Your task to perform on an android device: check data usage Image 0: 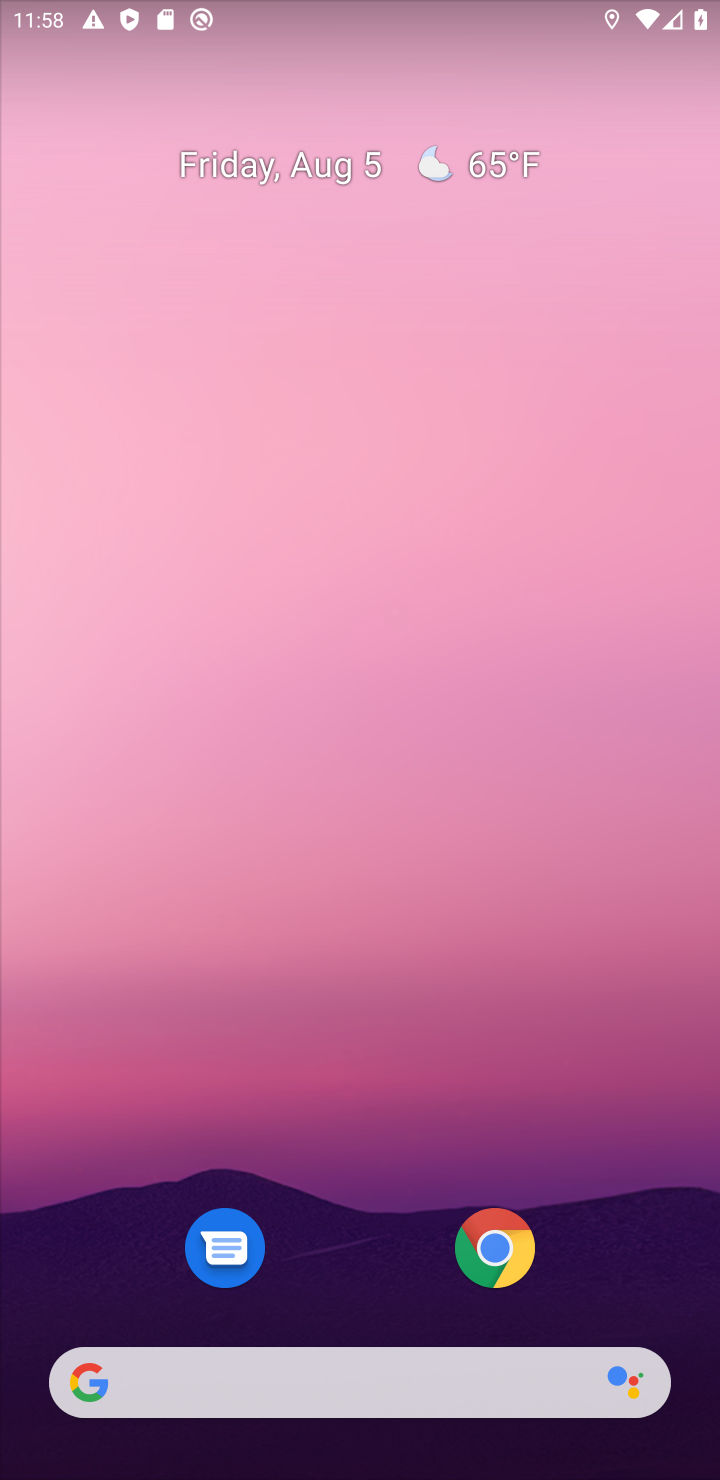
Step 0: drag from (361, 23) to (390, 836)
Your task to perform on an android device: check data usage Image 1: 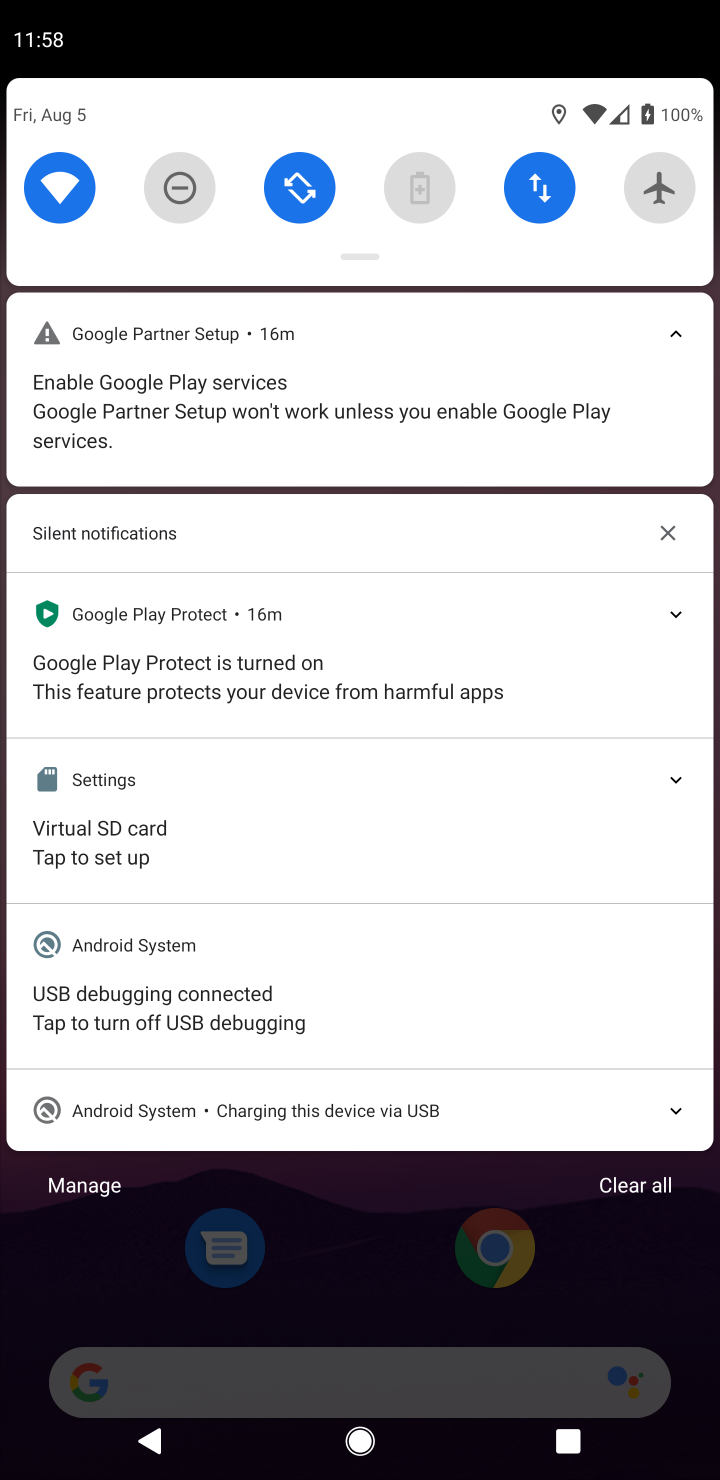
Step 1: drag from (425, 1269) to (421, 254)
Your task to perform on an android device: check data usage Image 2: 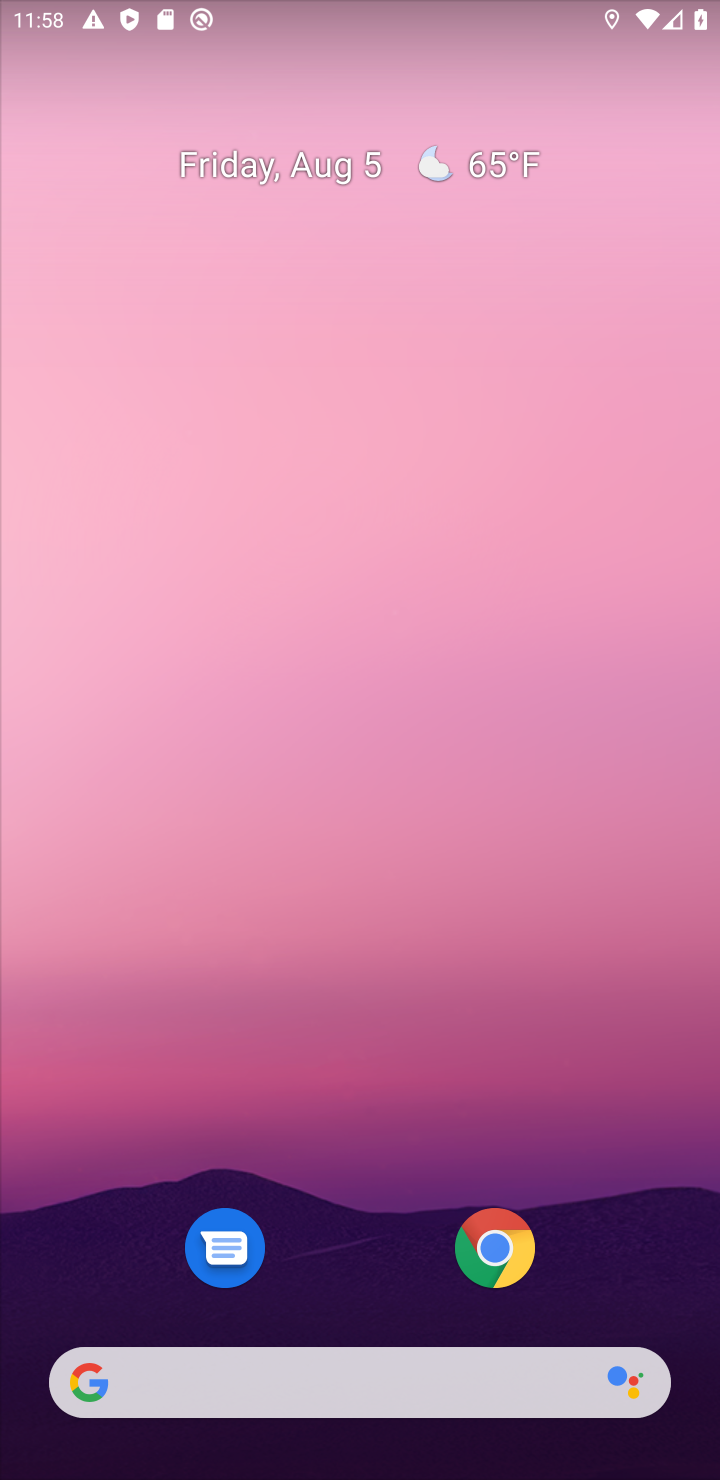
Step 2: drag from (372, 1301) to (433, 211)
Your task to perform on an android device: check data usage Image 3: 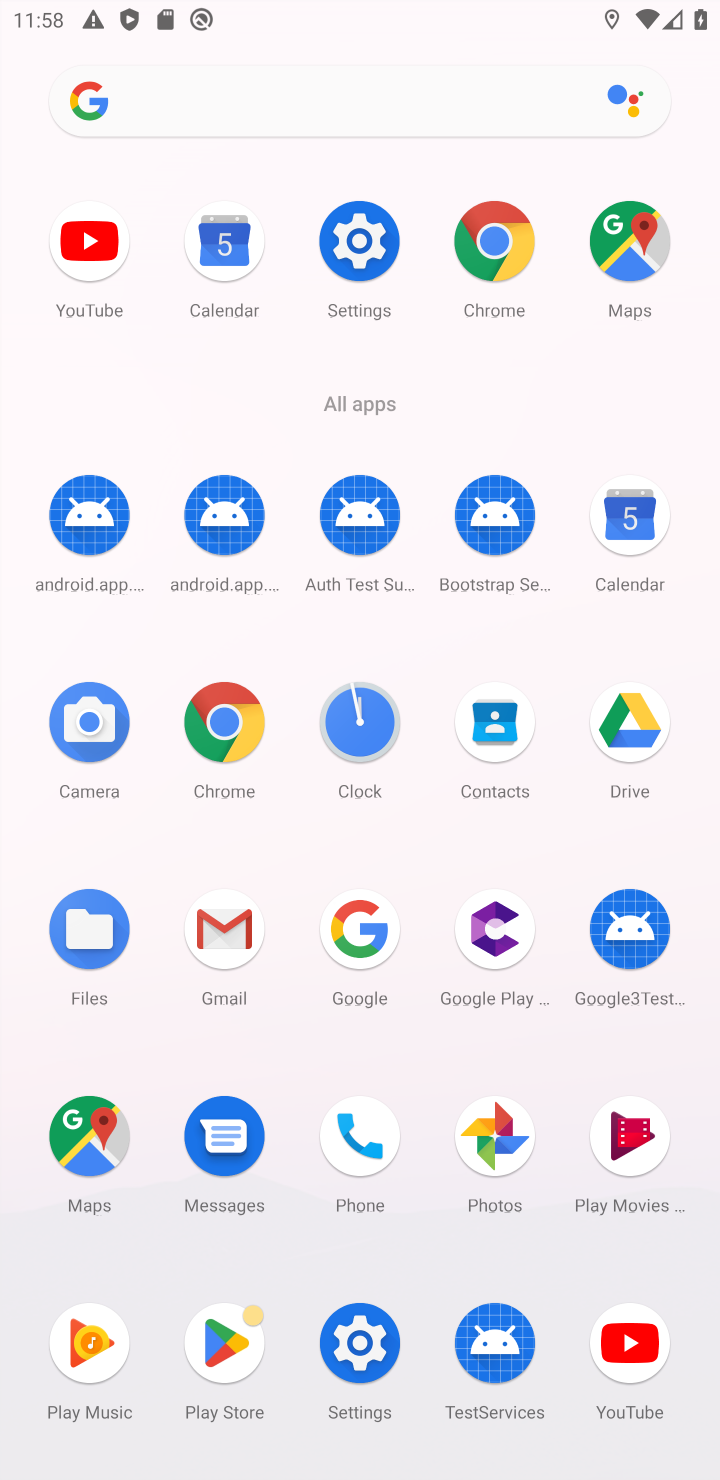
Step 3: click (349, 232)
Your task to perform on an android device: check data usage Image 4: 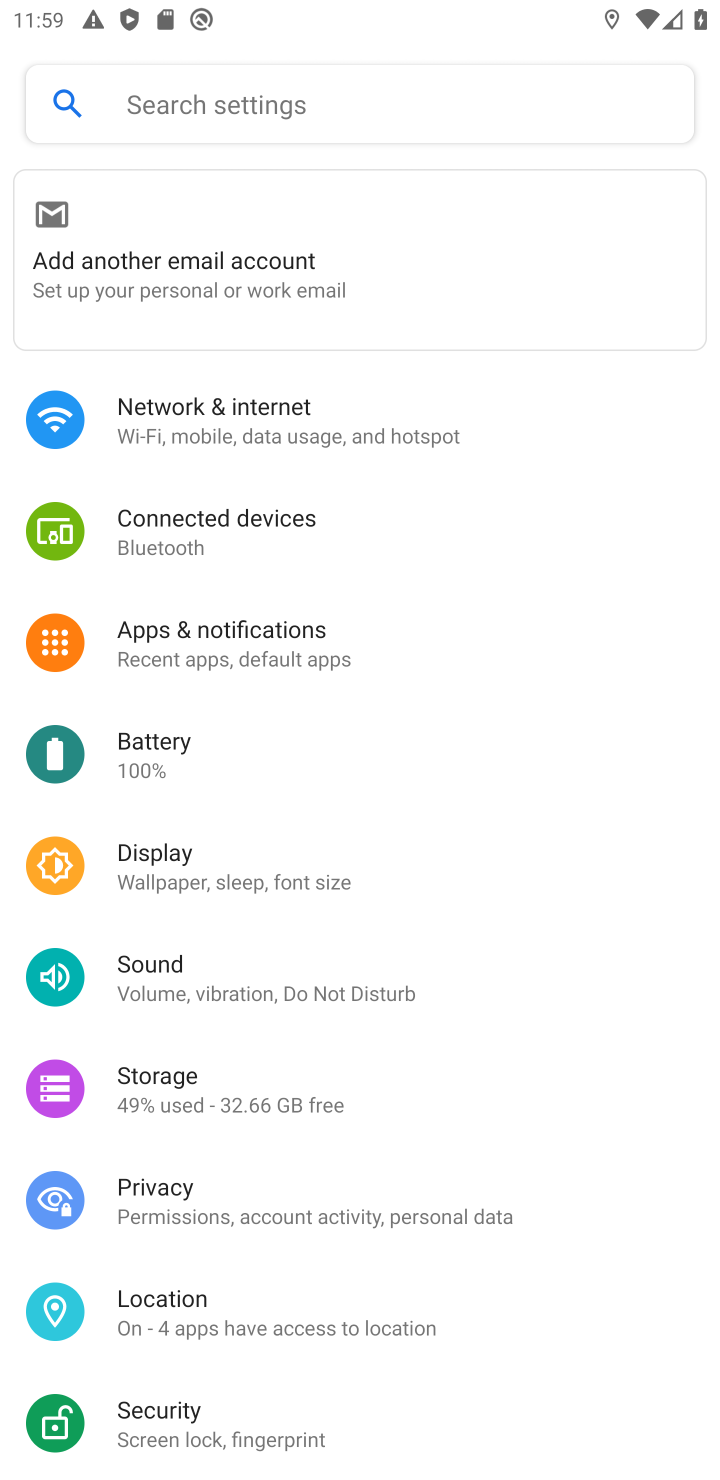
Step 4: click (255, 421)
Your task to perform on an android device: check data usage Image 5: 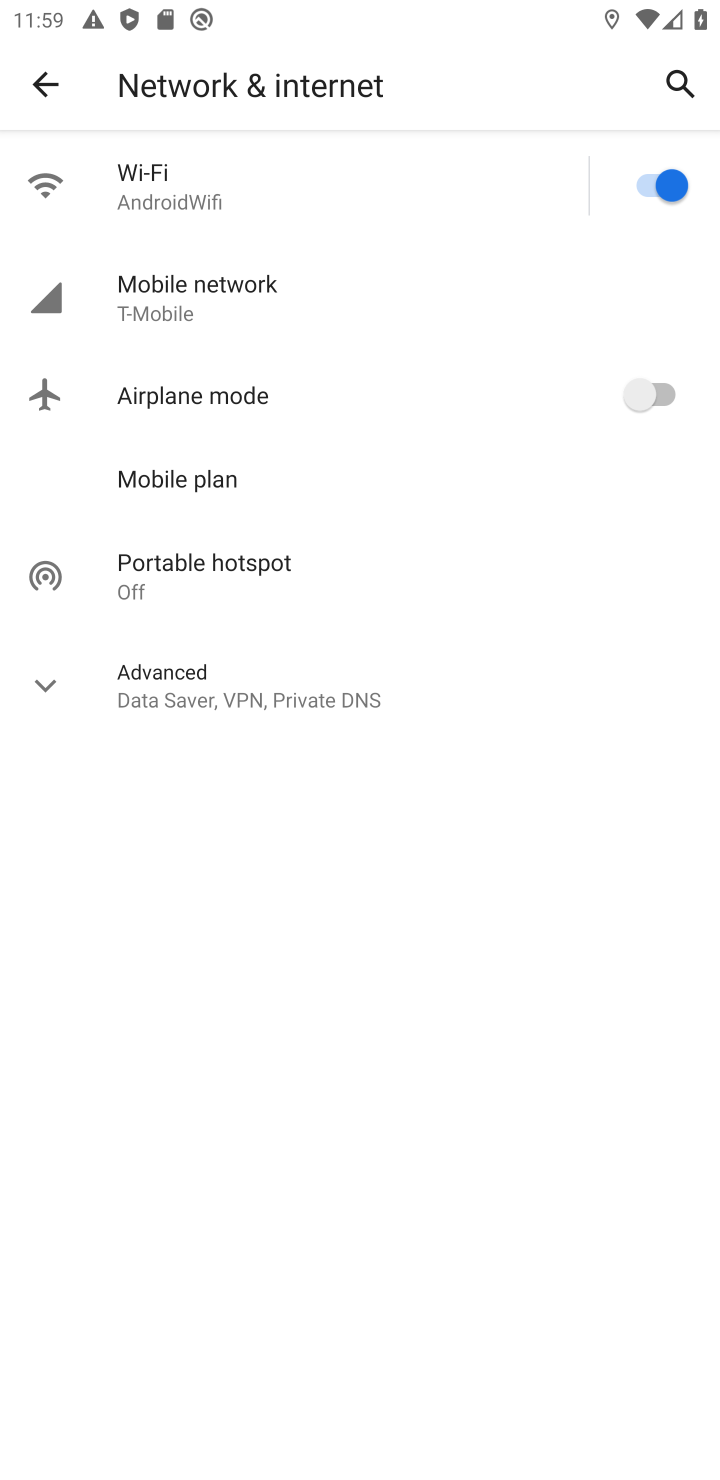
Step 5: click (224, 289)
Your task to perform on an android device: check data usage Image 6: 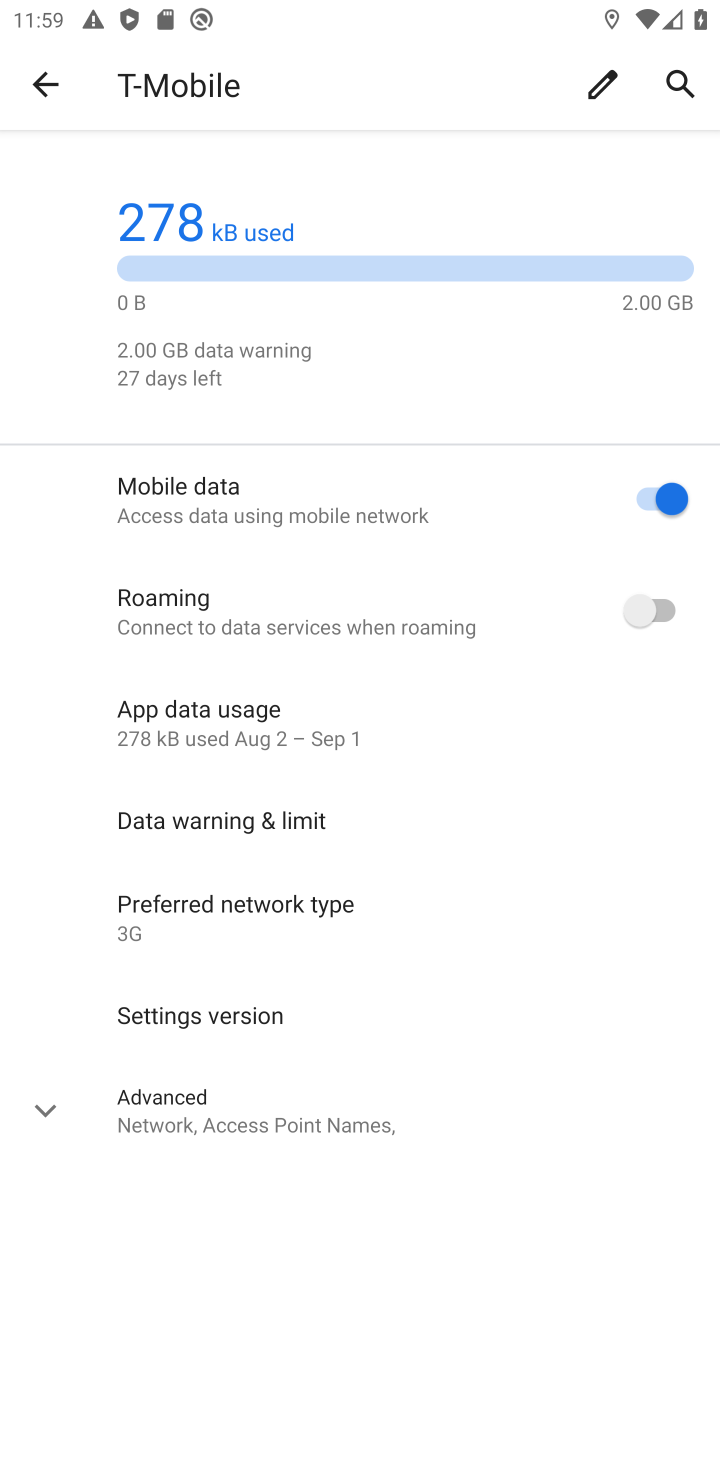
Step 6: click (291, 713)
Your task to perform on an android device: check data usage Image 7: 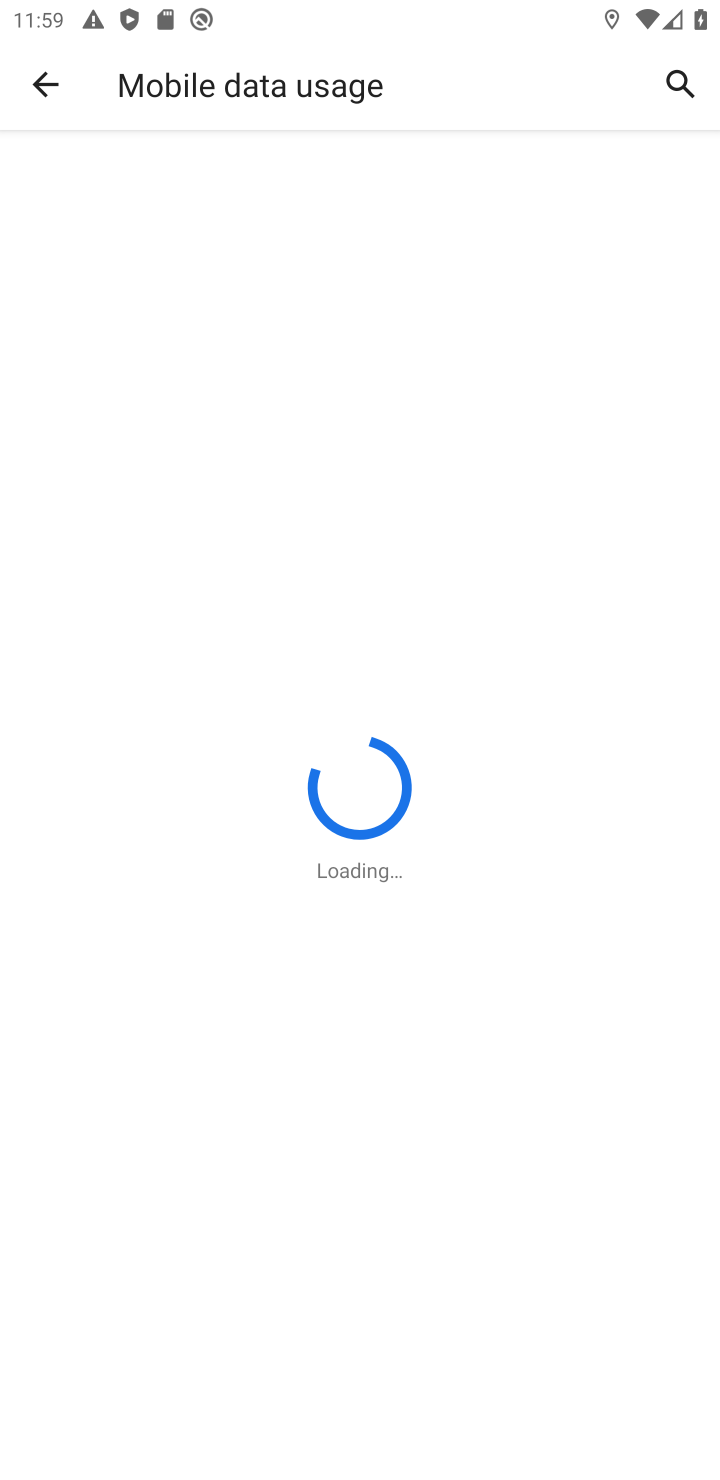
Step 7: task complete